Your task to perform on an android device: turn pop-ups off in chrome Image 0: 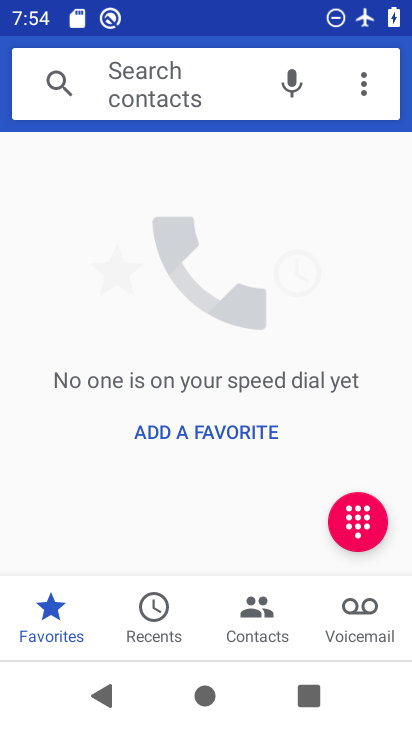
Step 0: press home button
Your task to perform on an android device: turn pop-ups off in chrome Image 1: 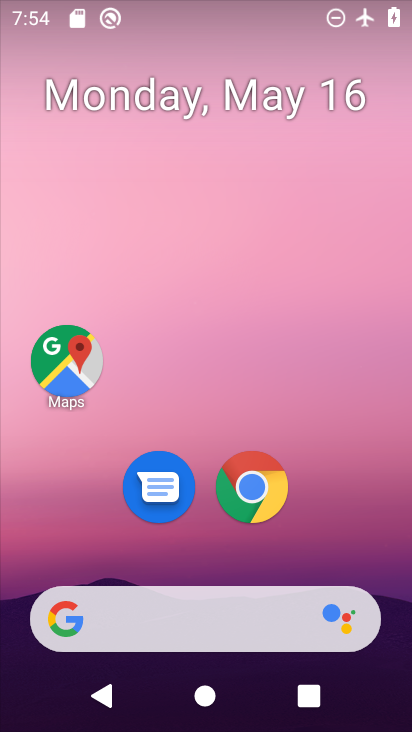
Step 1: click (271, 491)
Your task to perform on an android device: turn pop-ups off in chrome Image 2: 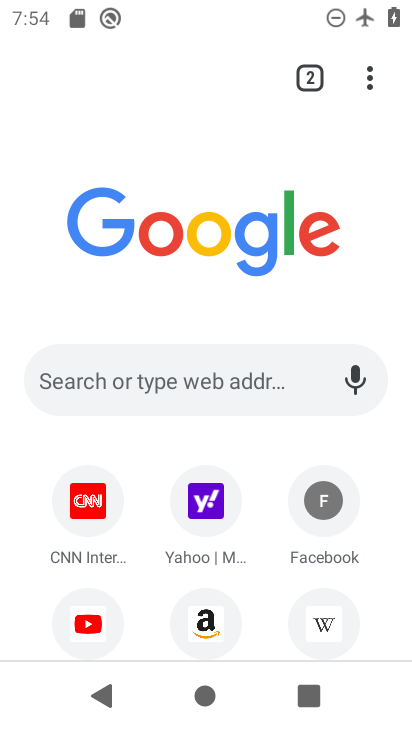
Step 2: click (369, 77)
Your task to perform on an android device: turn pop-ups off in chrome Image 3: 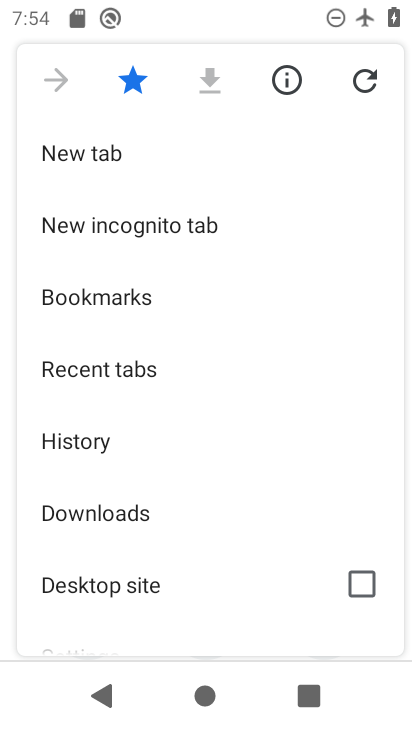
Step 3: drag from (189, 500) to (209, 264)
Your task to perform on an android device: turn pop-ups off in chrome Image 4: 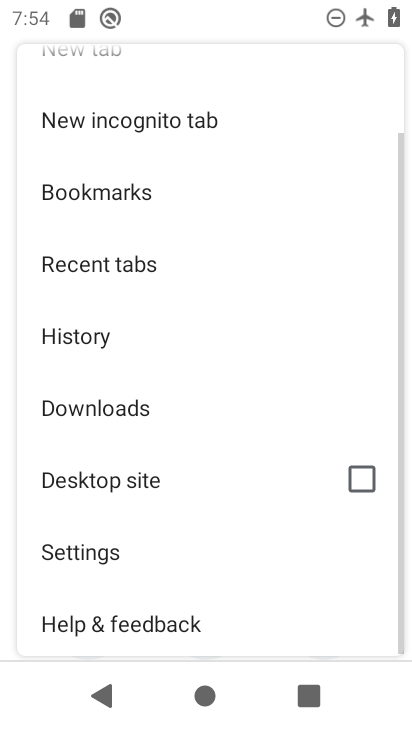
Step 4: click (125, 541)
Your task to perform on an android device: turn pop-ups off in chrome Image 5: 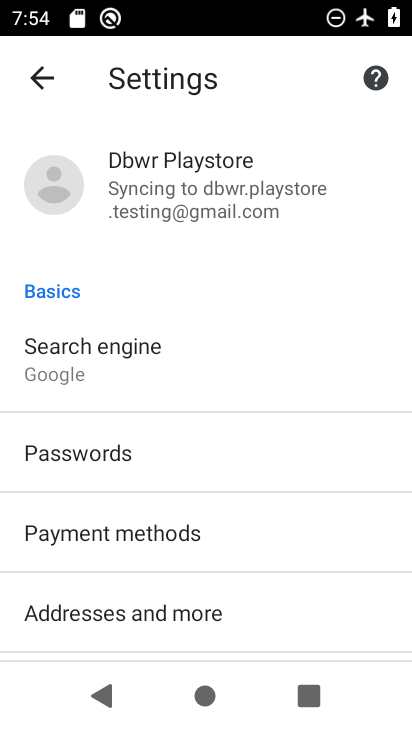
Step 5: drag from (226, 538) to (257, 300)
Your task to perform on an android device: turn pop-ups off in chrome Image 6: 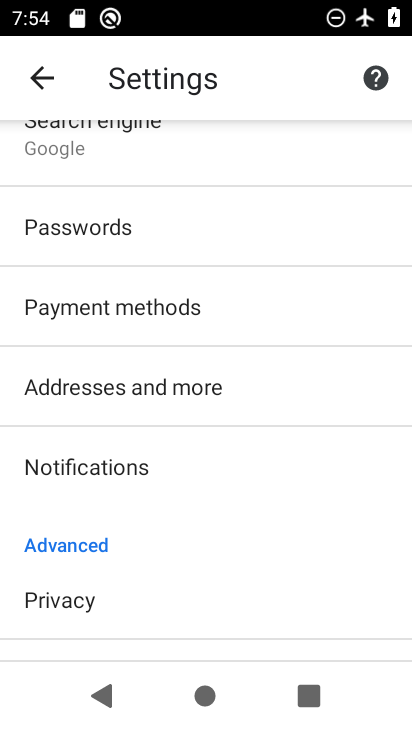
Step 6: drag from (174, 565) to (199, 349)
Your task to perform on an android device: turn pop-ups off in chrome Image 7: 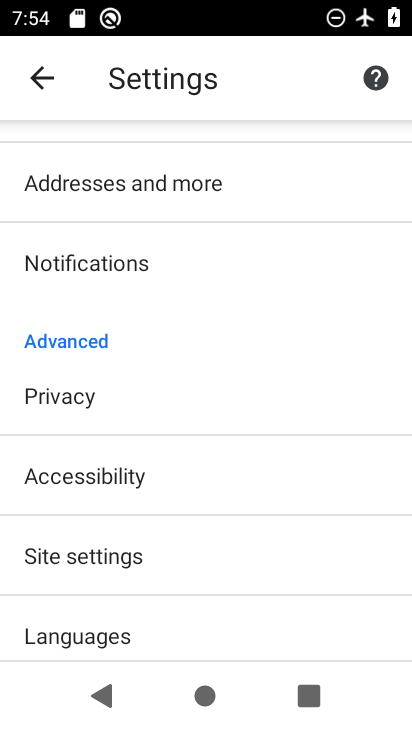
Step 7: click (134, 554)
Your task to perform on an android device: turn pop-ups off in chrome Image 8: 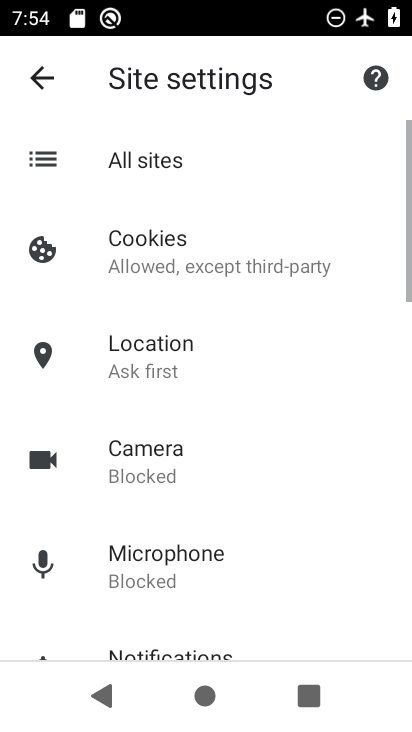
Step 8: drag from (242, 586) to (285, 257)
Your task to perform on an android device: turn pop-ups off in chrome Image 9: 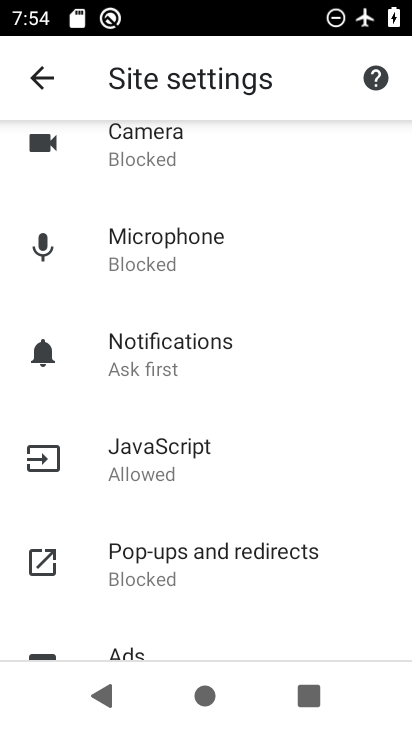
Step 9: click (232, 550)
Your task to perform on an android device: turn pop-ups off in chrome Image 10: 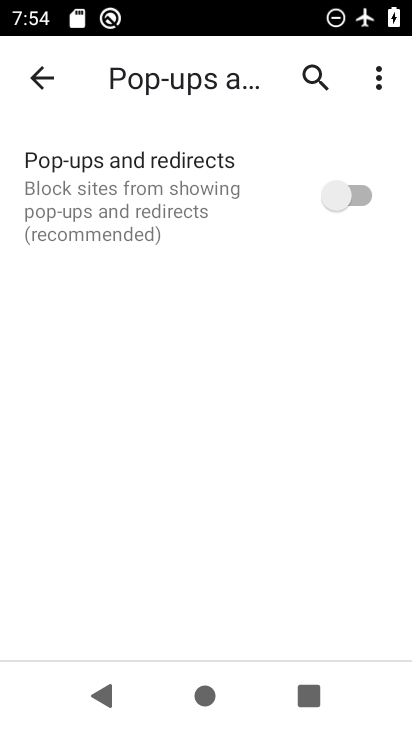
Step 10: task complete